Your task to perform on an android device: manage bookmarks in the chrome app Image 0: 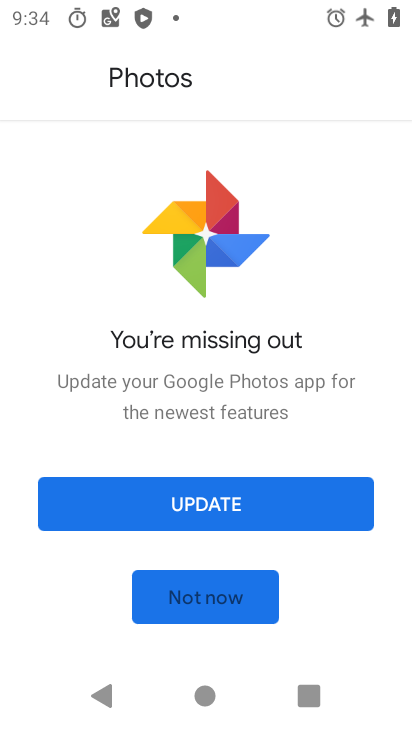
Step 0: press home button
Your task to perform on an android device: manage bookmarks in the chrome app Image 1: 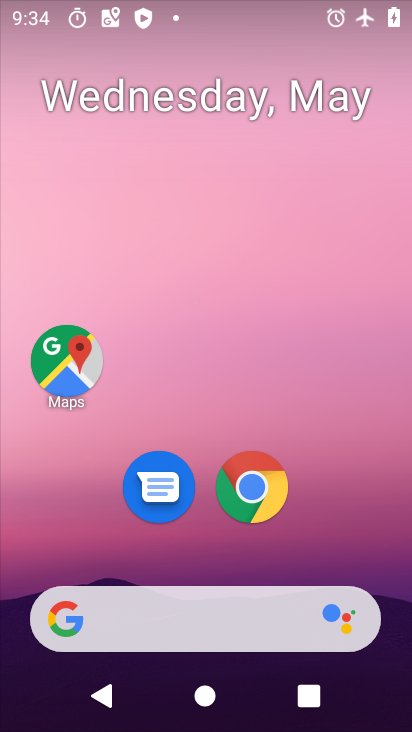
Step 1: click (243, 500)
Your task to perform on an android device: manage bookmarks in the chrome app Image 2: 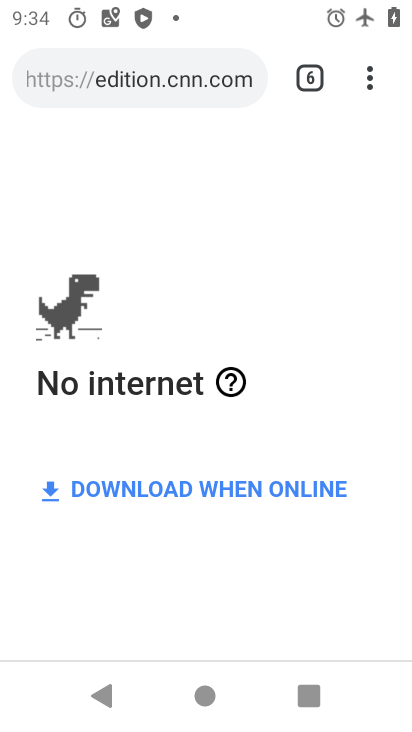
Step 2: click (310, 68)
Your task to perform on an android device: manage bookmarks in the chrome app Image 3: 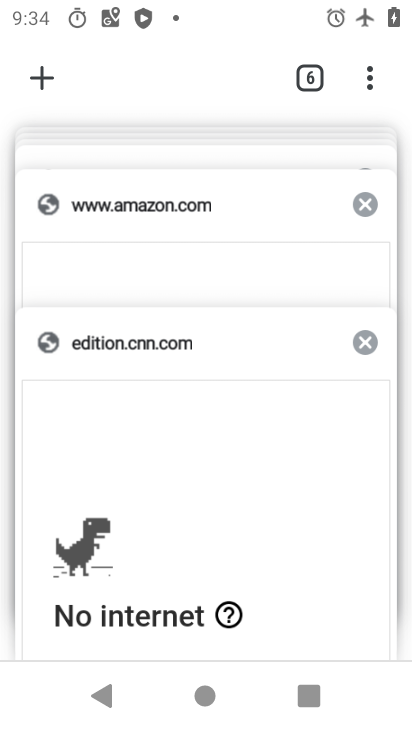
Step 3: click (366, 70)
Your task to perform on an android device: manage bookmarks in the chrome app Image 4: 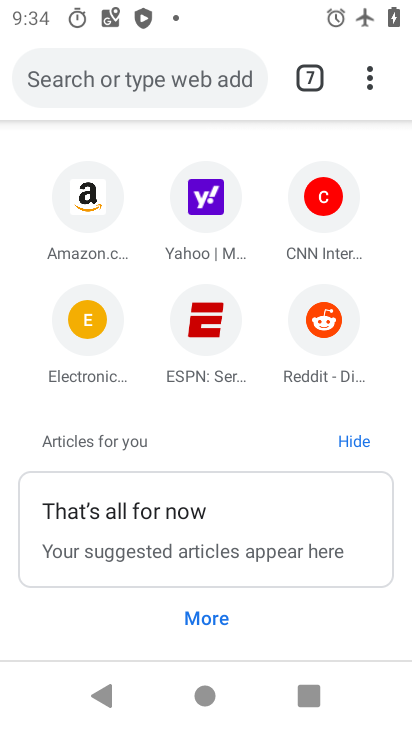
Step 4: click (366, 70)
Your task to perform on an android device: manage bookmarks in the chrome app Image 5: 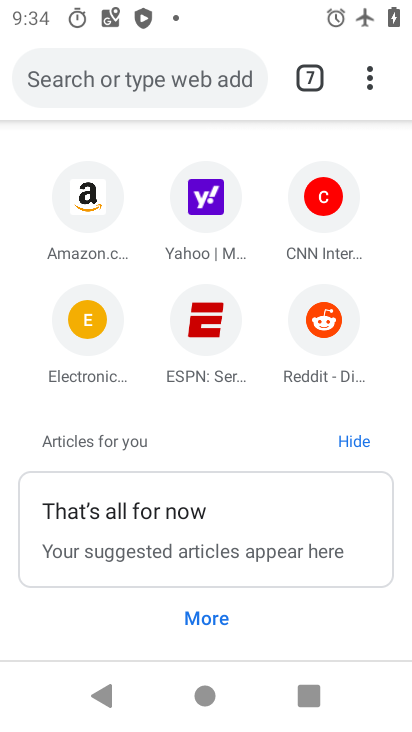
Step 5: drag from (367, 75) to (139, 293)
Your task to perform on an android device: manage bookmarks in the chrome app Image 6: 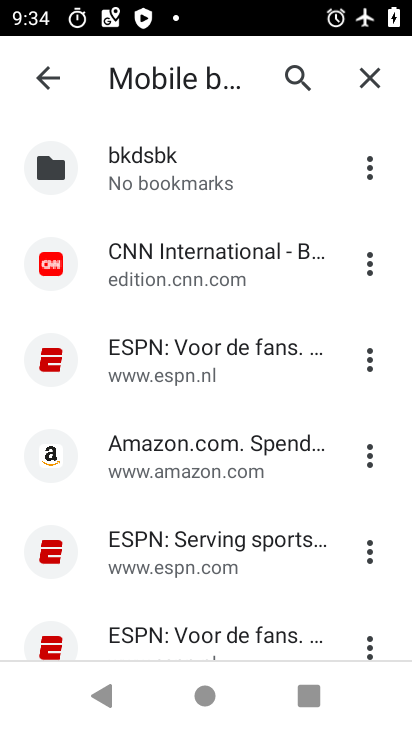
Step 6: click (365, 258)
Your task to perform on an android device: manage bookmarks in the chrome app Image 7: 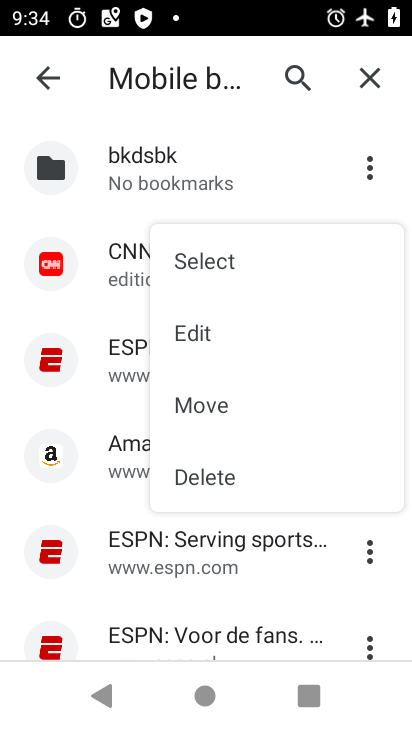
Step 7: click (371, 257)
Your task to perform on an android device: manage bookmarks in the chrome app Image 8: 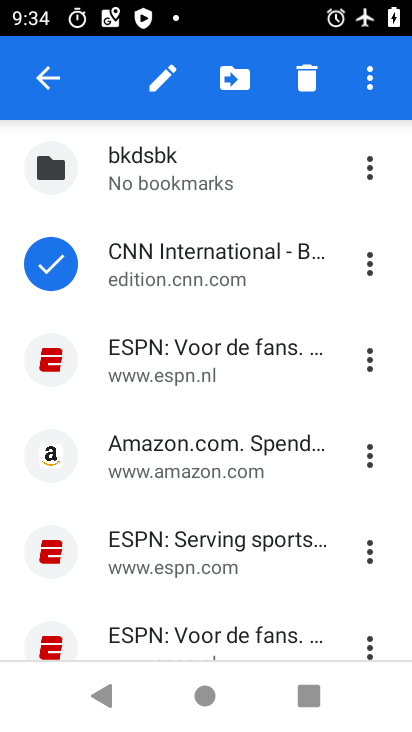
Step 8: click (307, 80)
Your task to perform on an android device: manage bookmarks in the chrome app Image 9: 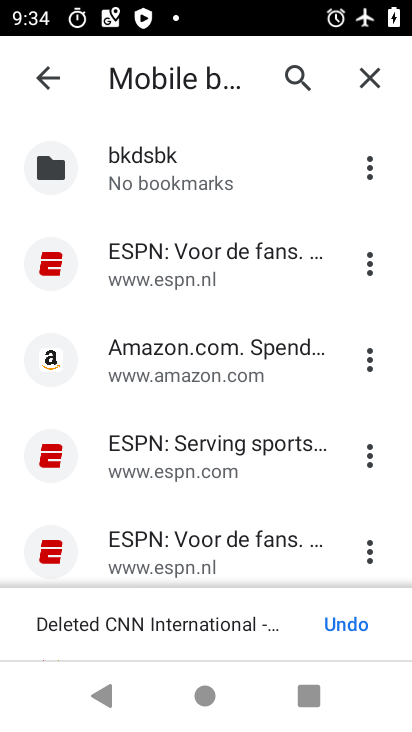
Step 9: task complete